Your task to perform on an android device: open a new tab in the chrome app Image 0: 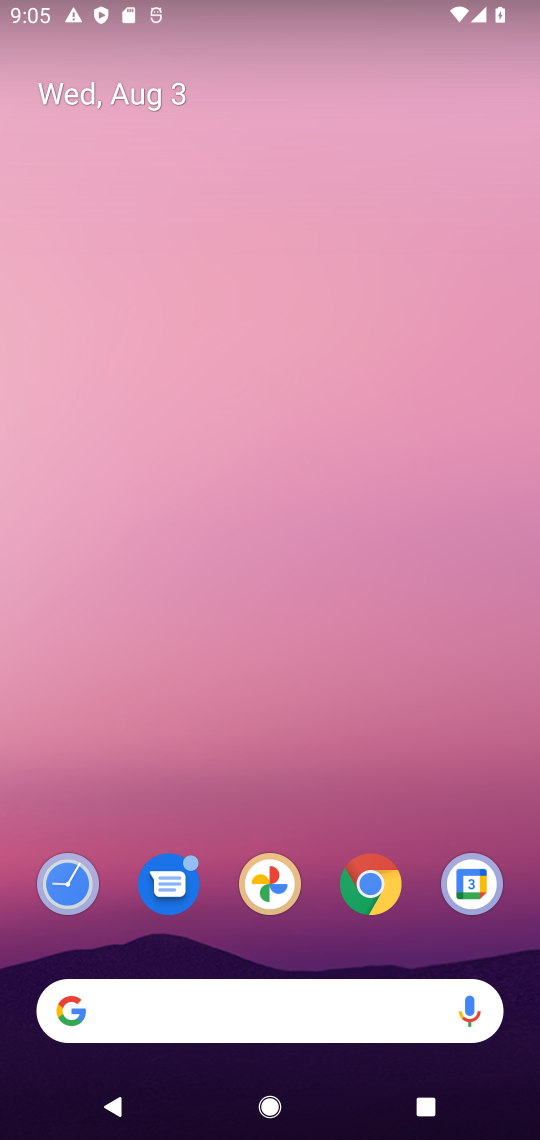
Step 0: press home button
Your task to perform on an android device: open a new tab in the chrome app Image 1: 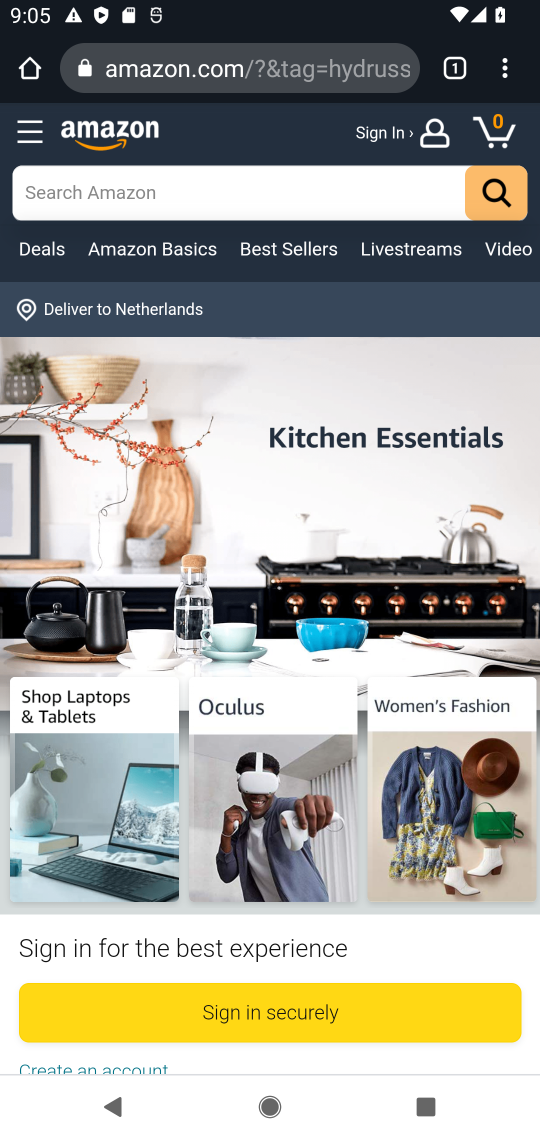
Step 1: drag from (382, 855) to (315, 47)
Your task to perform on an android device: open a new tab in the chrome app Image 2: 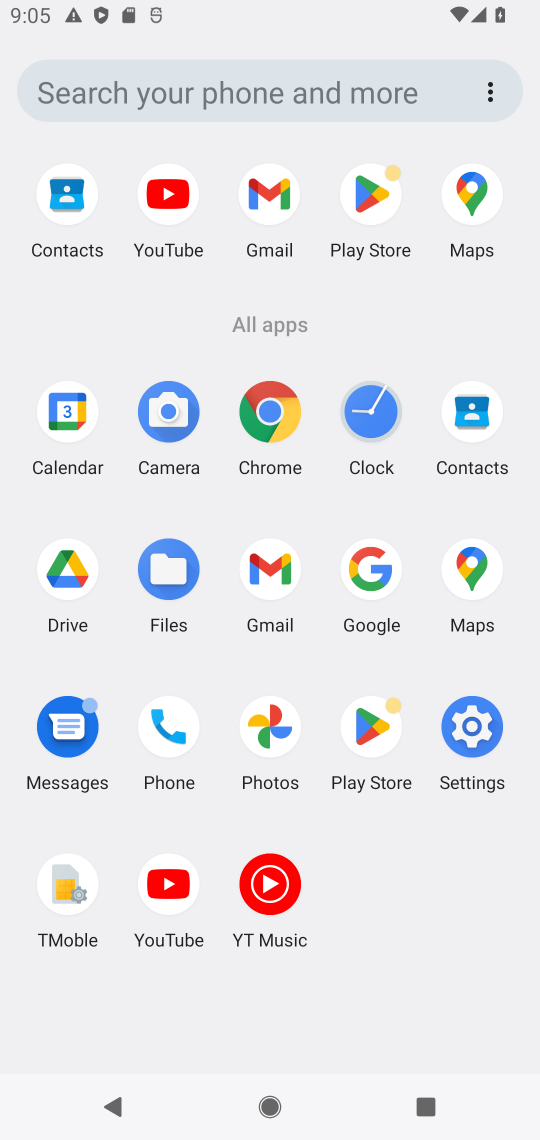
Step 2: click (265, 406)
Your task to perform on an android device: open a new tab in the chrome app Image 3: 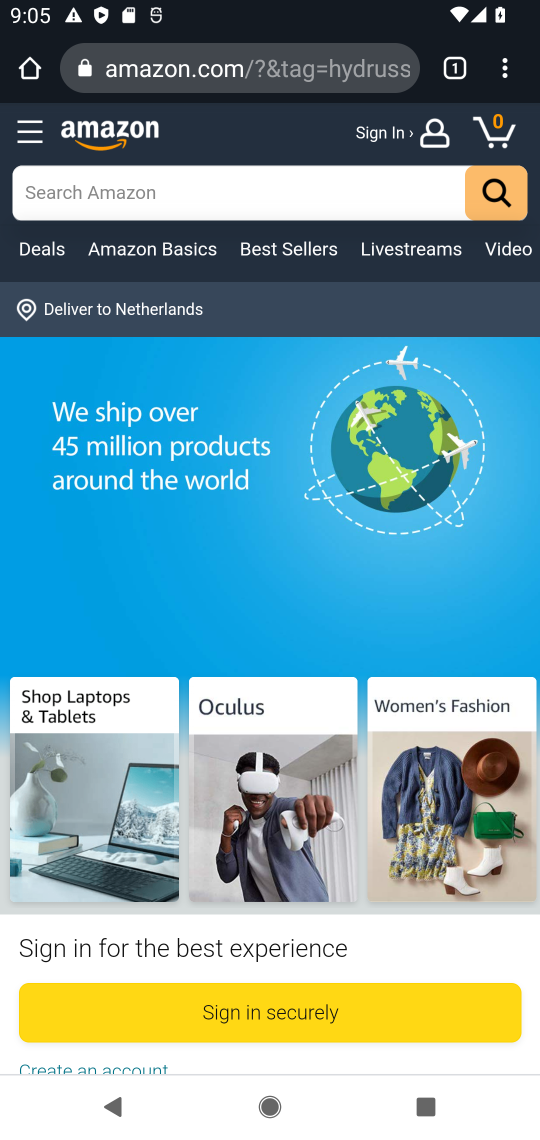
Step 3: task complete